Your task to perform on an android device: Toggle the flashlight Image 0: 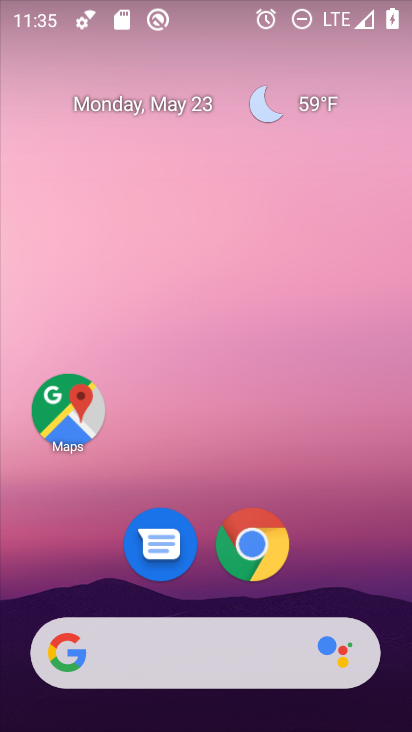
Step 0: drag from (403, 615) to (368, 122)
Your task to perform on an android device: Toggle the flashlight Image 1: 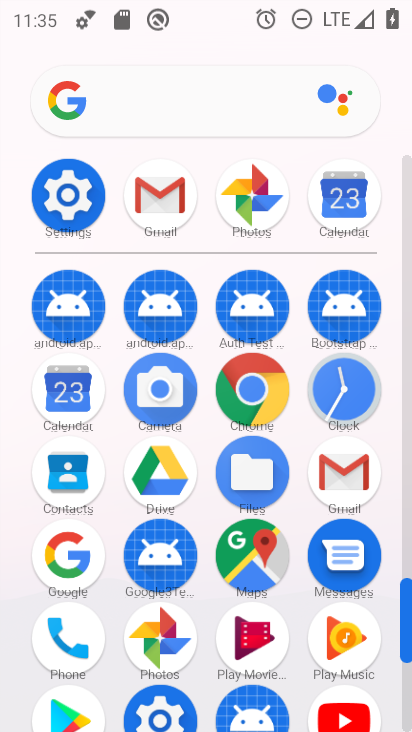
Step 1: press back button
Your task to perform on an android device: Toggle the flashlight Image 2: 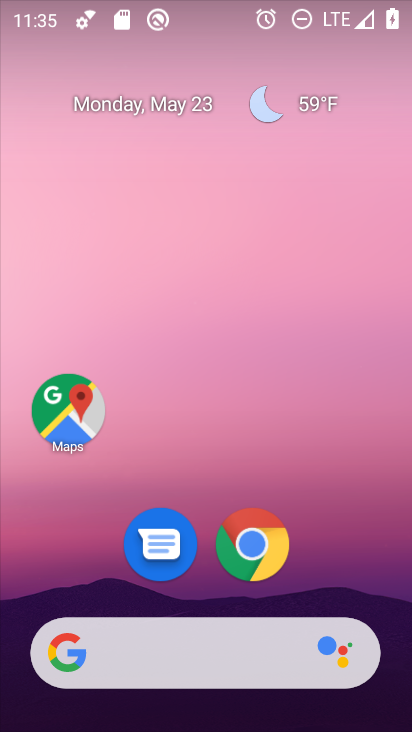
Step 2: drag from (219, 23) to (229, 466)
Your task to perform on an android device: Toggle the flashlight Image 3: 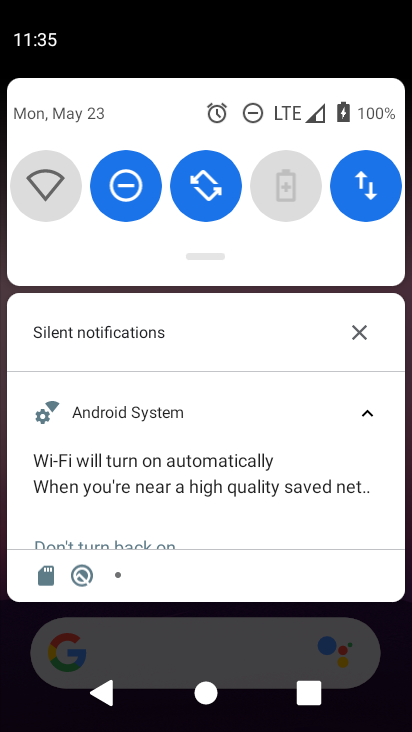
Step 3: drag from (204, 261) to (205, 480)
Your task to perform on an android device: Toggle the flashlight Image 4: 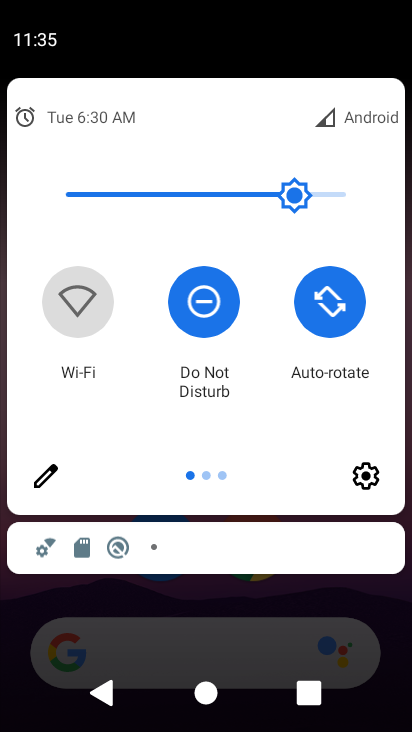
Step 4: click (38, 477)
Your task to perform on an android device: Toggle the flashlight Image 5: 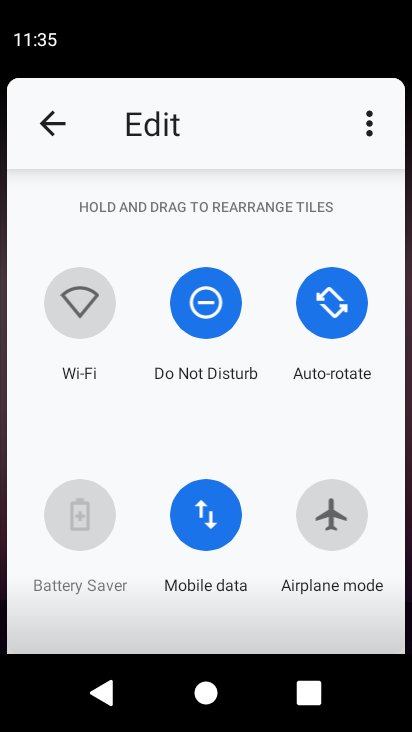
Step 5: task complete